Your task to perform on an android device: Open Google Chrome and open the bookmarks view Image 0: 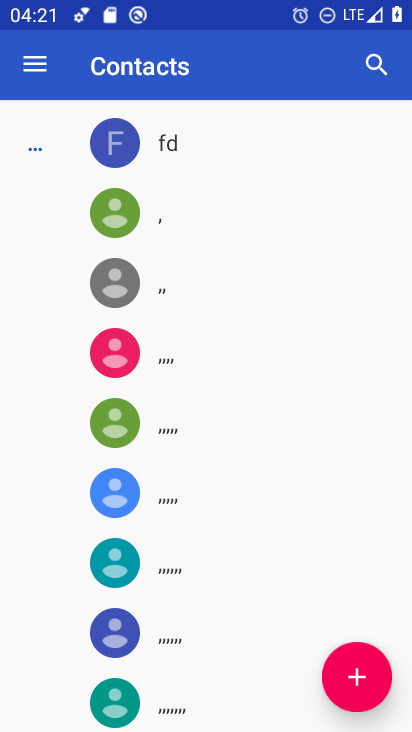
Step 0: press home button
Your task to perform on an android device: Open Google Chrome and open the bookmarks view Image 1: 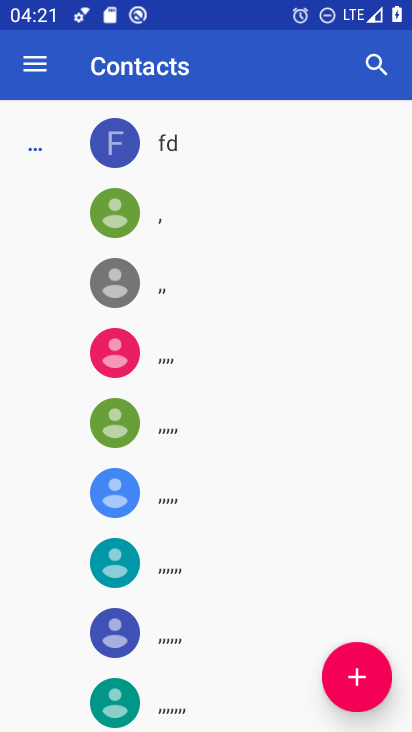
Step 1: press home button
Your task to perform on an android device: Open Google Chrome and open the bookmarks view Image 2: 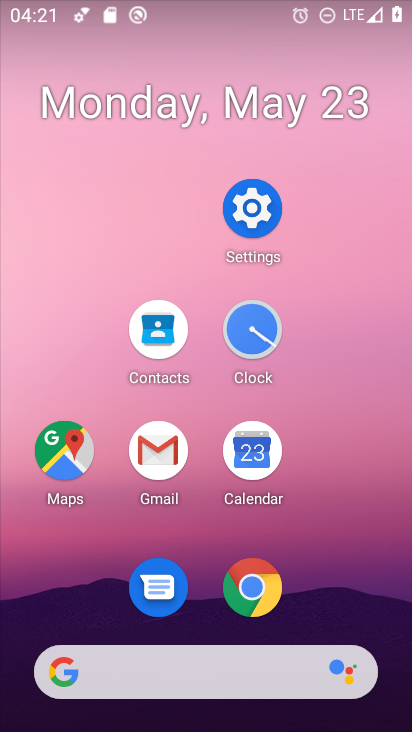
Step 2: click (252, 599)
Your task to perform on an android device: Open Google Chrome and open the bookmarks view Image 3: 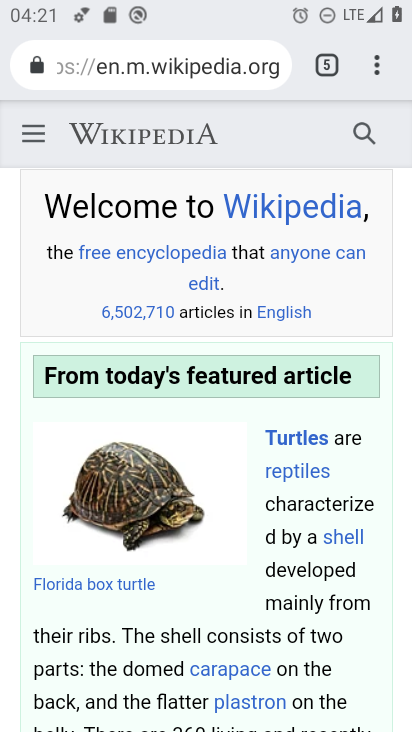
Step 3: click (386, 61)
Your task to perform on an android device: Open Google Chrome and open the bookmarks view Image 4: 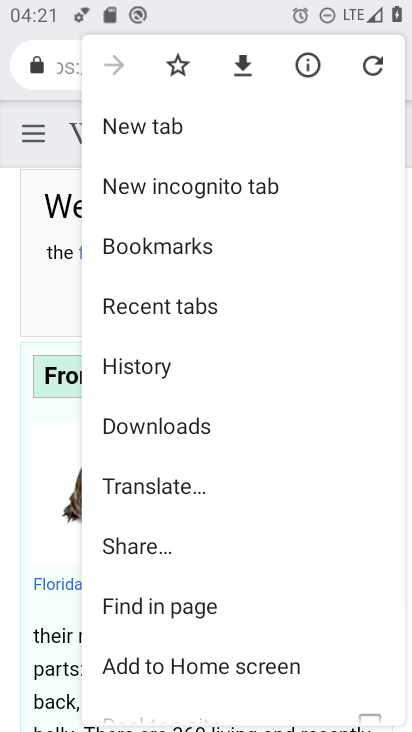
Step 4: click (216, 249)
Your task to perform on an android device: Open Google Chrome and open the bookmarks view Image 5: 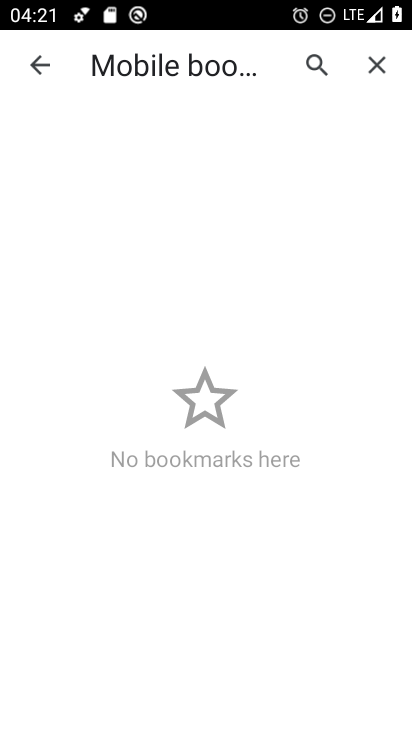
Step 5: task complete